Your task to perform on an android device: make emails show in primary in the gmail app Image 0: 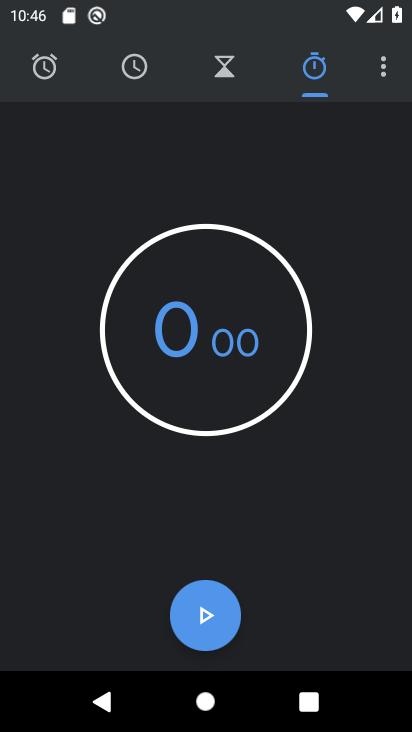
Step 0: press home button
Your task to perform on an android device: make emails show in primary in the gmail app Image 1: 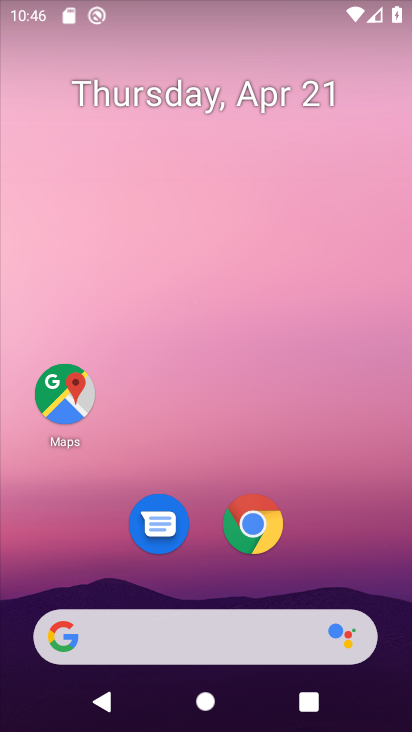
Step 1: drag from (321, 549) to (323, 85)
Your task to perform on an android device: make emails show in primary in the gmail app Image 2: 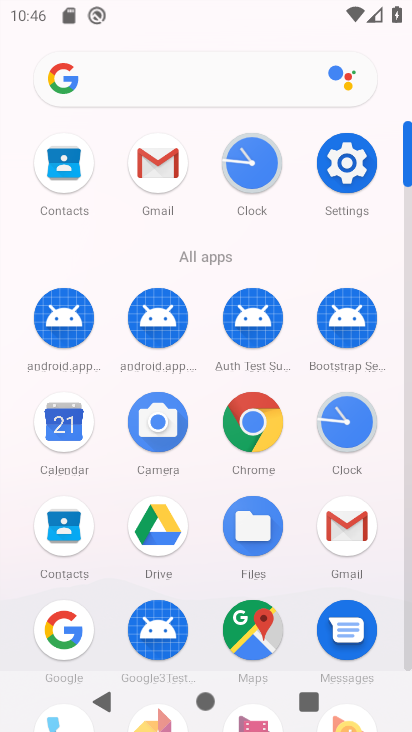
Step 2: click (159, 165)
Your task to perform on an android device: make emails show in primary in the gmail app Image 3: 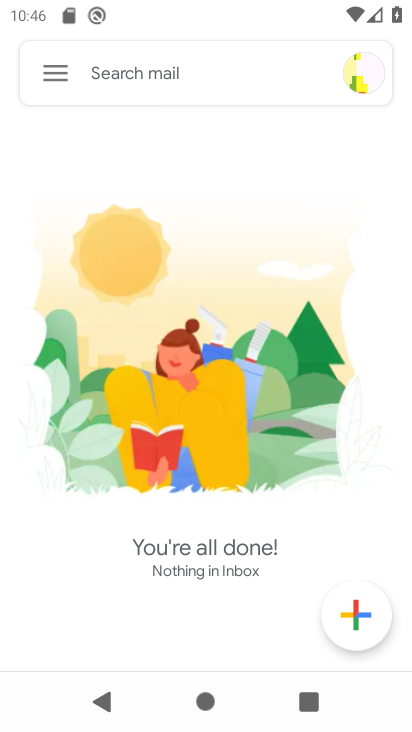
Step 3: click (56, 64)
Your task to perform on an android device: make emails show in primary in the gmail app Image 4: 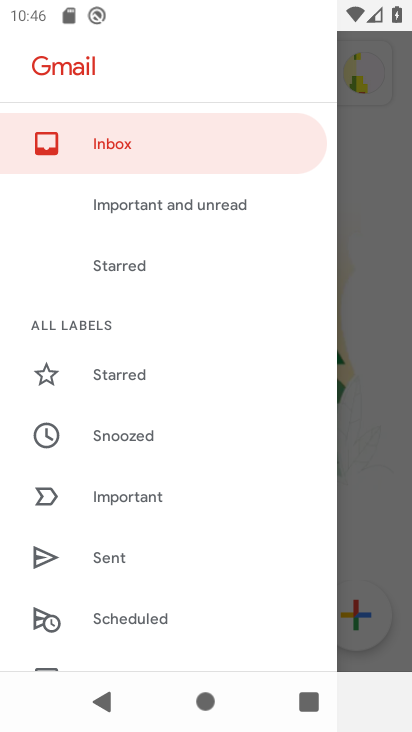
Step 4: drag from (182, 566) to (240, 84)
Your task to perform on an android device: make emails show in primary in the gmail app Image 5: 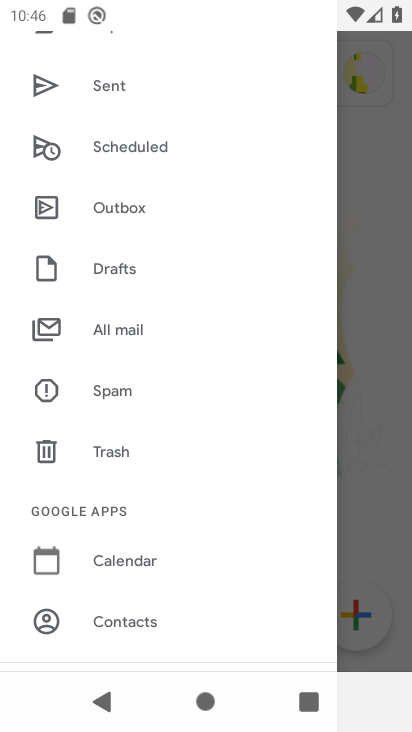
Step 5: drag from (180, 477) to (207, 138)
Your task to perform on an android device: make emails show in primary in the gmail app Image 6: 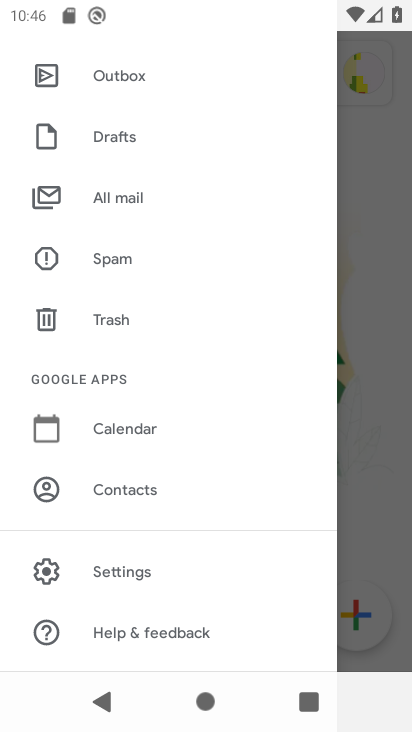
Step 6: click (130, 560)
Your task to perform on an android device: make emails show in primary in the gmail app Image 7: 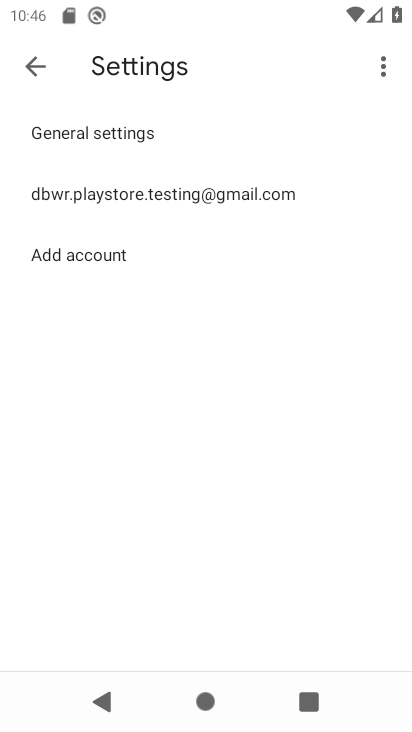
Step 7: click (258, 180)
Your task to perform on an android device: make emails show in primary in the gmail app Image 8: 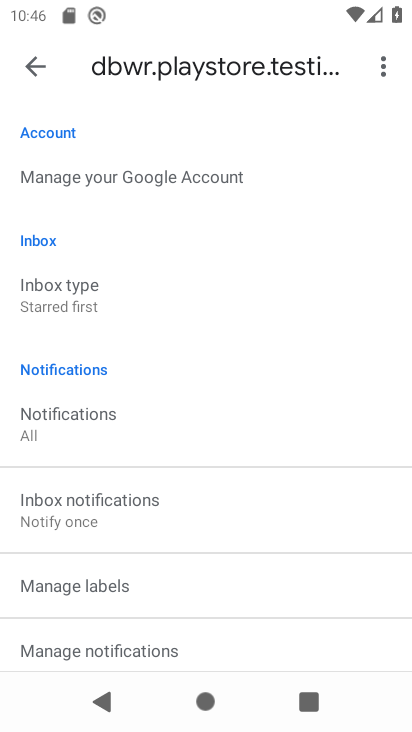
Step 8: click (84, 290)
Your task to perform on an android device: make emails show in primary in the gmail app Image 9: 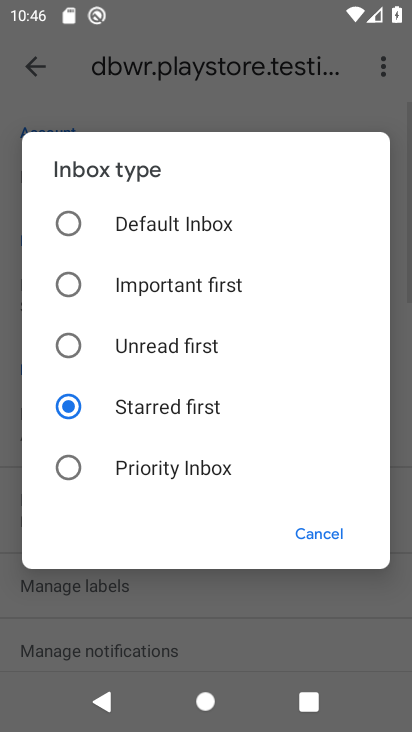
Step 9: click (110, 215)
Your task to perform on an android device: make emails show in primary in the gmail app Image 10: 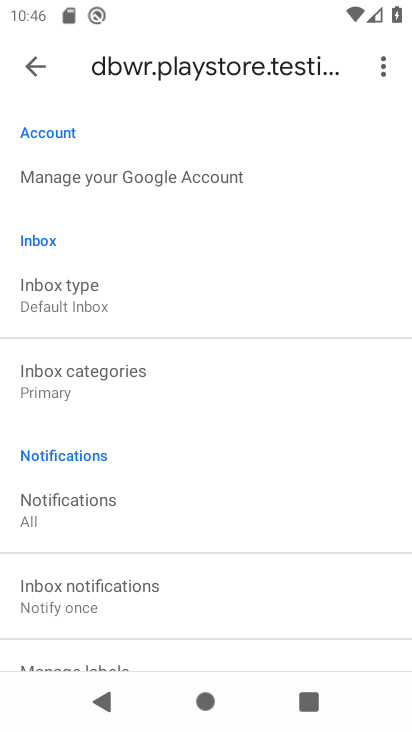
Step 10: task complete